Your task to perform on an android device: turn off airplane mode Image 0: 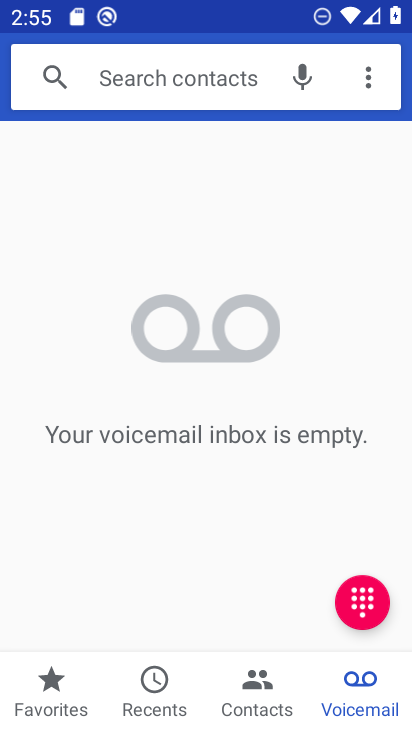
Step 0: press home button
Your task to perform on an android device: turn off airplane mode Image 1: 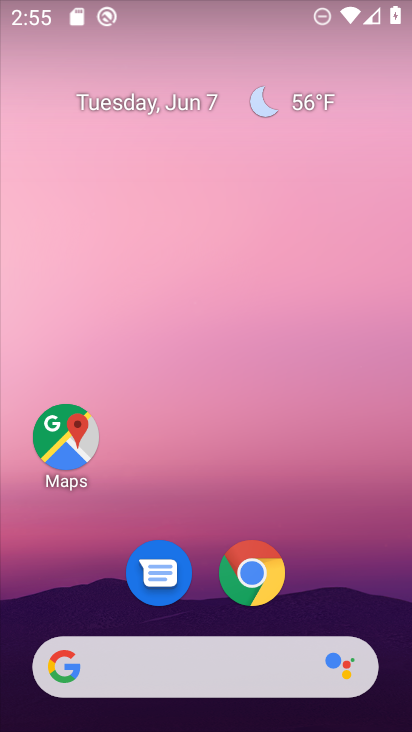
Step 1: drag from (343, 597) to (357, 4)
Your task to perform on an android device: turn off airplane mode Image 2: 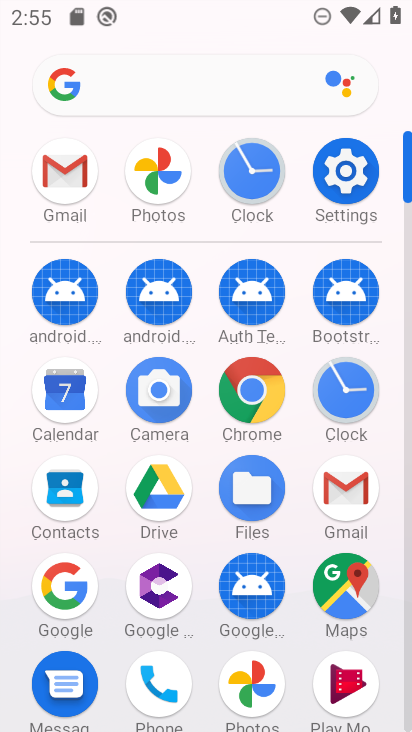
Step 2: click (348, 173)
Your task to perform on an android device: turn off airplane mode Image 3: 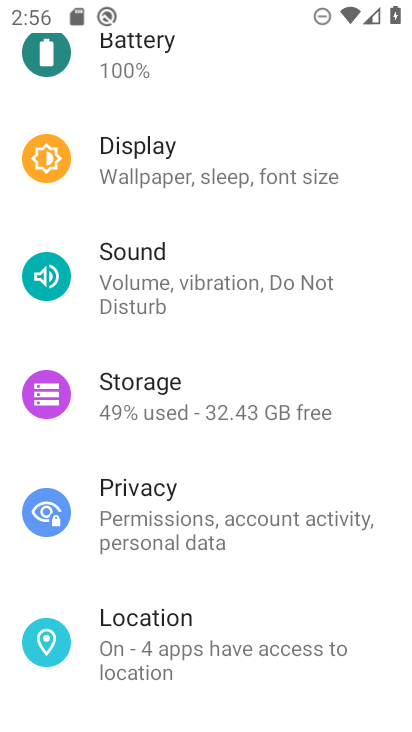
Step 3: drag from (212, 219) to (226, 616)
Your task to perform on an android device: turn off airplane mode Image 4: 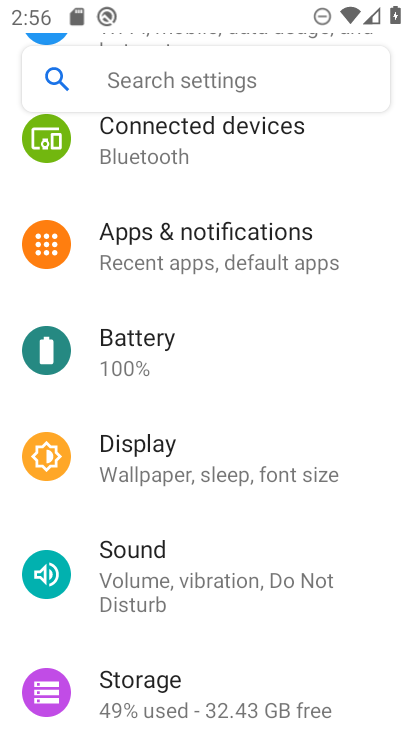
Step 4: drag from (231, 218) to (291, 638)
Your task to perform on an android device: turn off airplane mode Image 5: 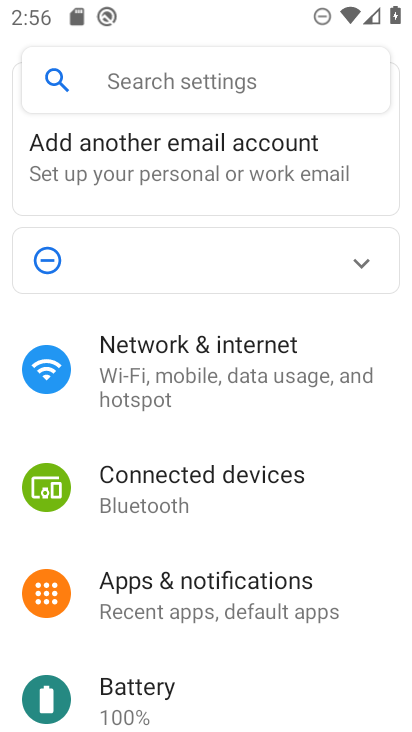
Step 5: click (221, 382)
Your task to perform on an android device: turn off airplane mode Image 6: 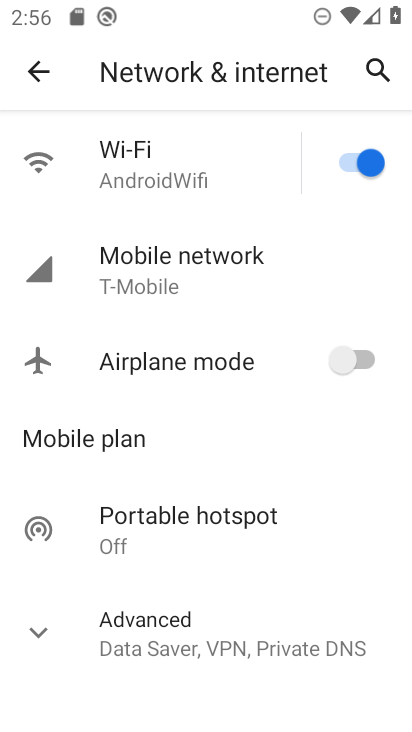
Step 6: task complete